Your task to perform on an android device: Search for logitech g502 on target, select the first entry, and add it to the cart. Image 0: 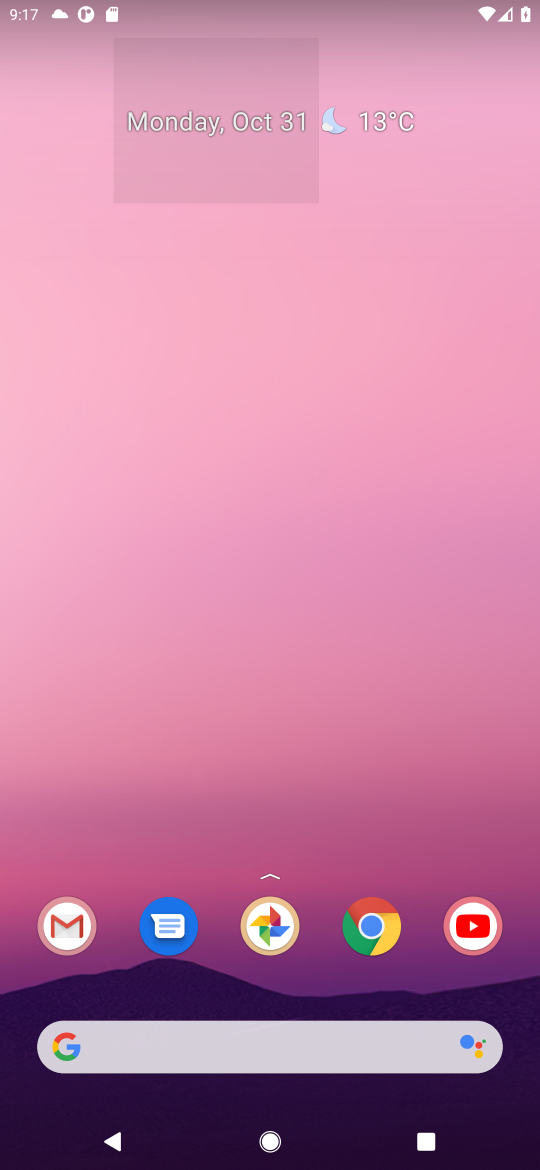
Step 0: click (365, 945)
Your task to perform on an android device: Search for logitech g502 on target, select the first entry, and add it to the cart. Image 1: 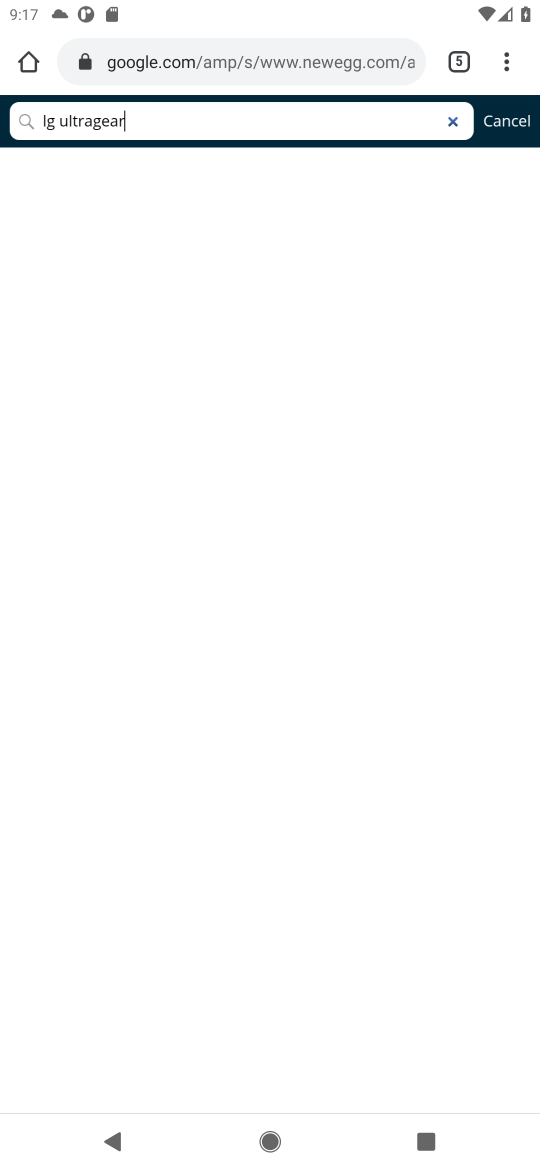
Step 1: click (464, 60)
Your task to perform on an android device: Search for logitech g502 on target, select the first entry, and add it to the cart. Image 2: 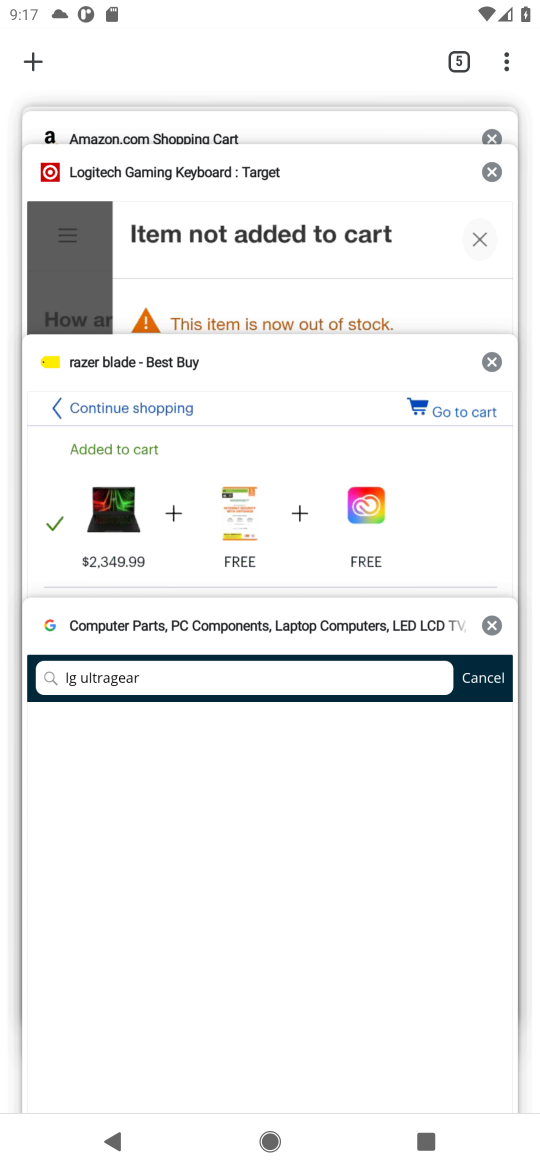
Step 2: click (254, 268)
Your task to perform on an android device: Search for logitech g502 on target, select the first entry, and add it to the cart. Image 3: 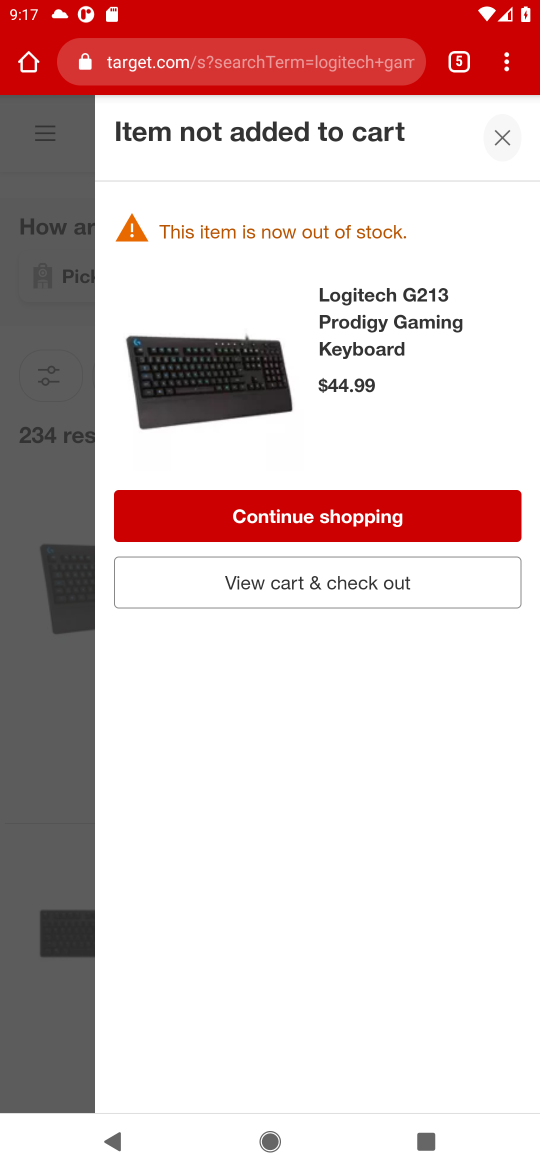
Step 3: click (506, 137)
Your task to perform on an android device: Search for logitech g502 on target, select the first entry, and add it to the cart. Image 4: 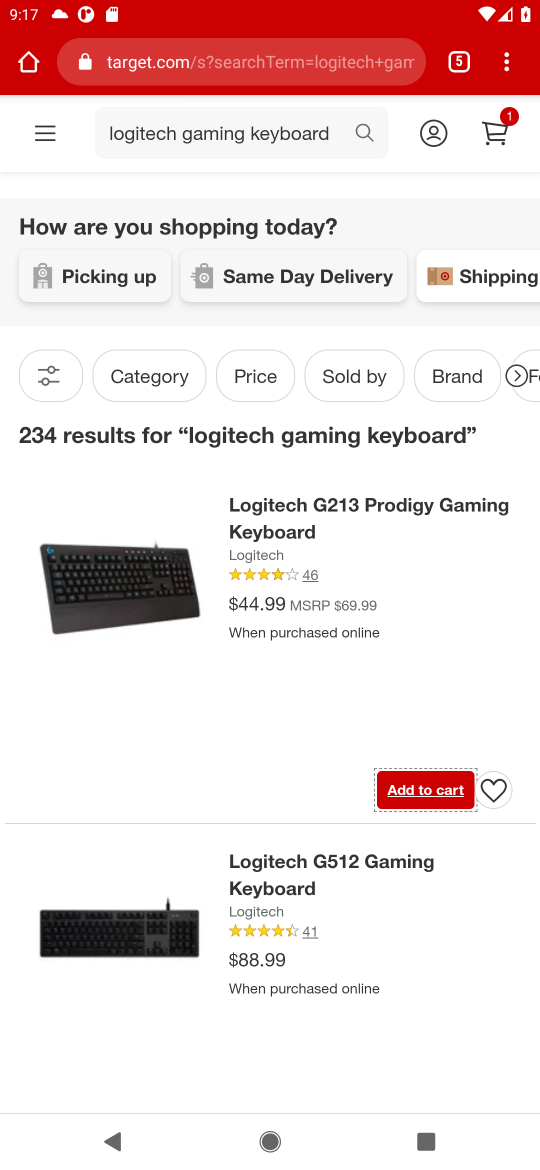
Step 4: click (360, 123)
Your task to perform on an android device: Search for logitech g502 on target, select the first entry, and add it to the cart. Image 5: 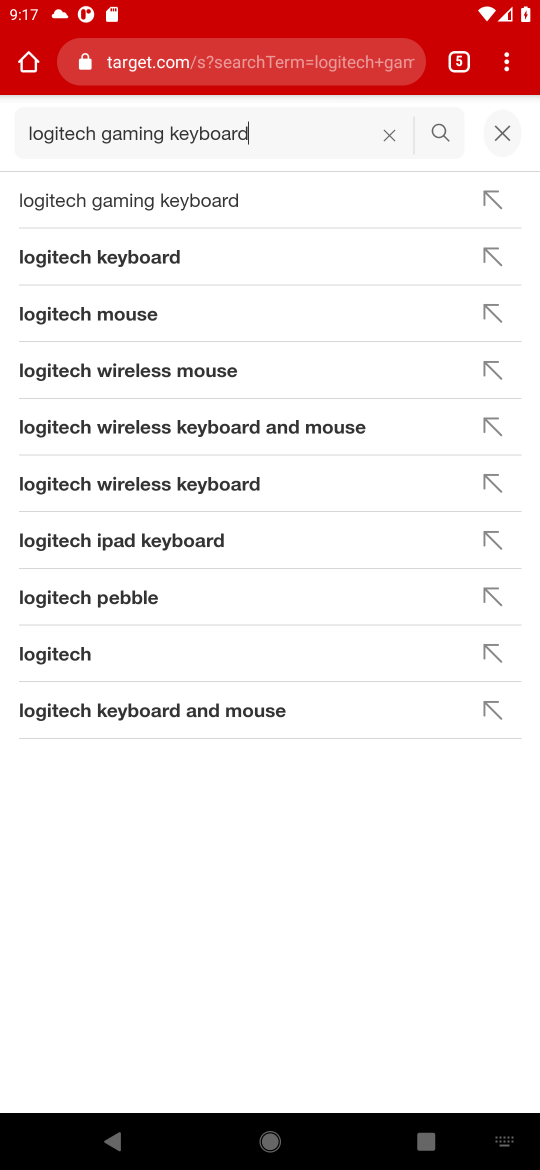
Step 5: click (170, 203)
Your task to perform on an android device: Search for logitech g502 on target, select the first entry, and add it to the cart. Image 6: 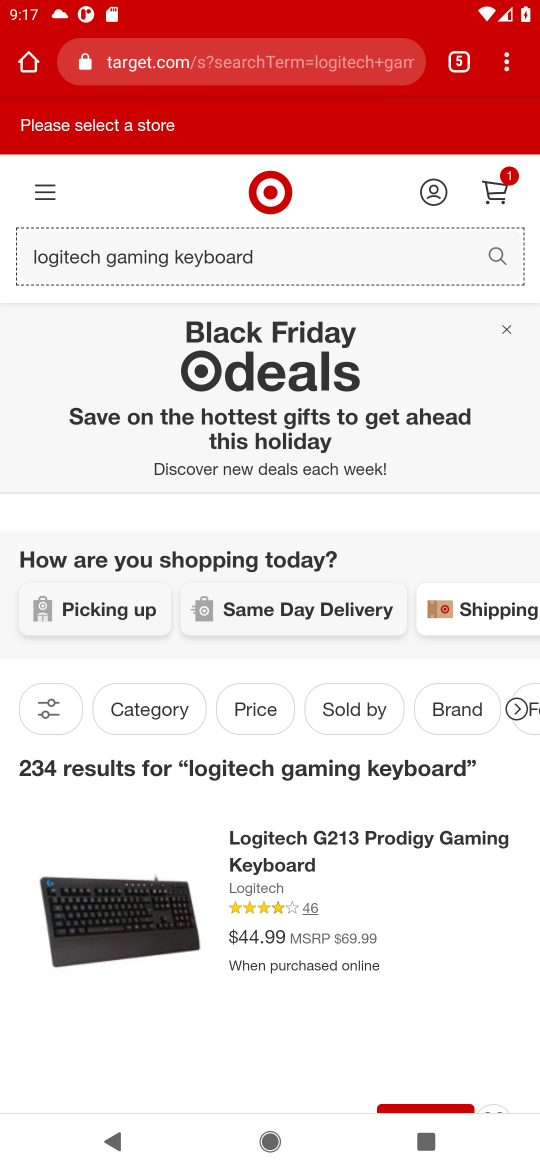
Step 6: drag from (359, 977) to (386, 721)
Your task to perform on an android device: Search for logitech g502 on target, select the first entry, and add it to the cart. Image 7: 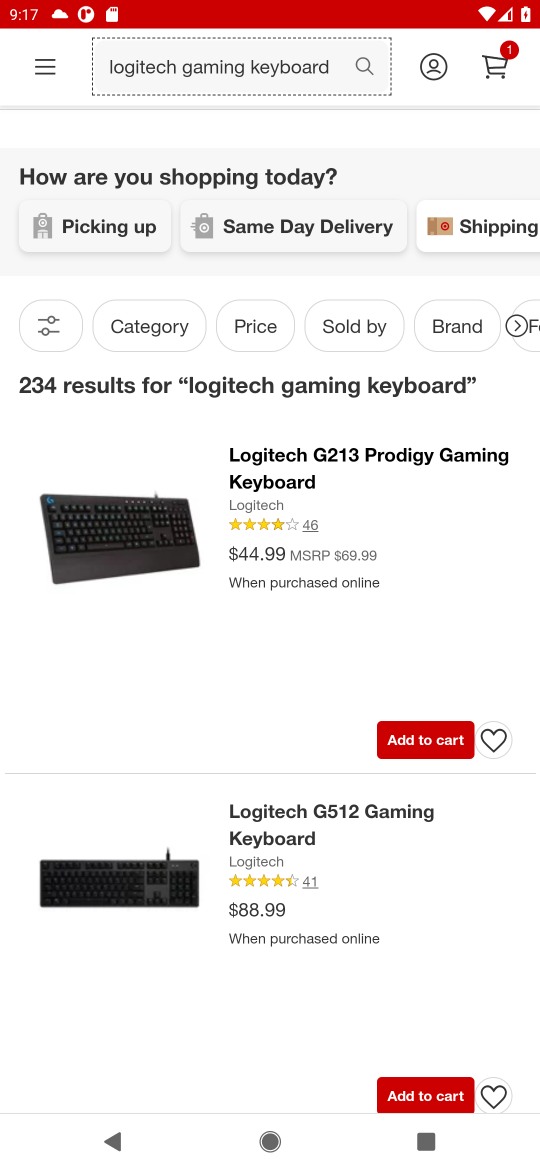
Step 7: drag from (407, 881) to (404, 319)
Your task to perform on an android device: Search for logitech g502 on target, select the first entry, and add it to the cart. Image 8: 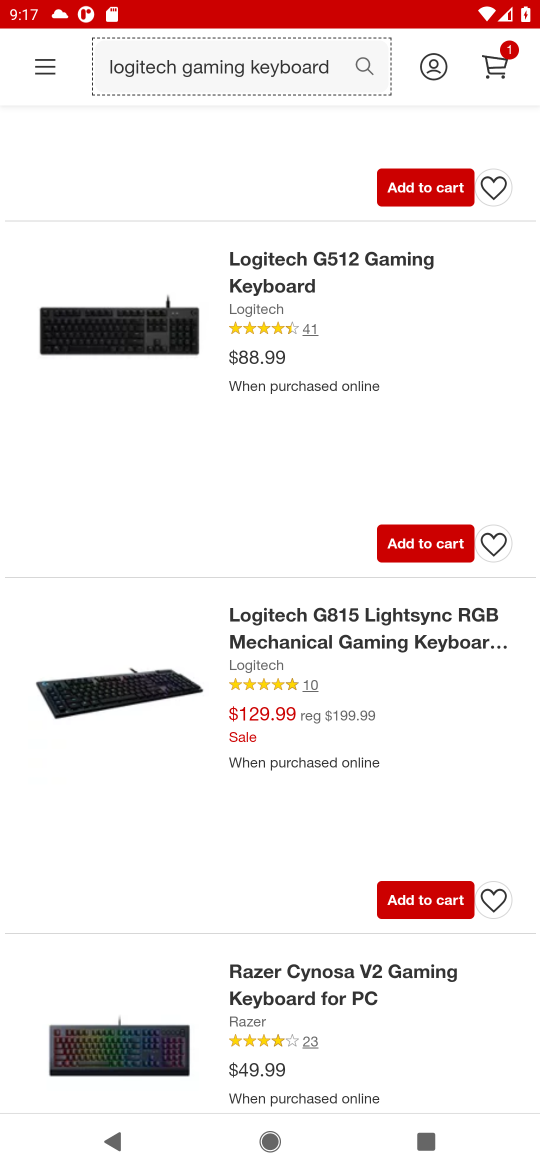
Step 8: click (431, 537)
Your task to perform on an android device: Search for logitech g502 on target, select the first entry, and add it to the cart. Image 9: 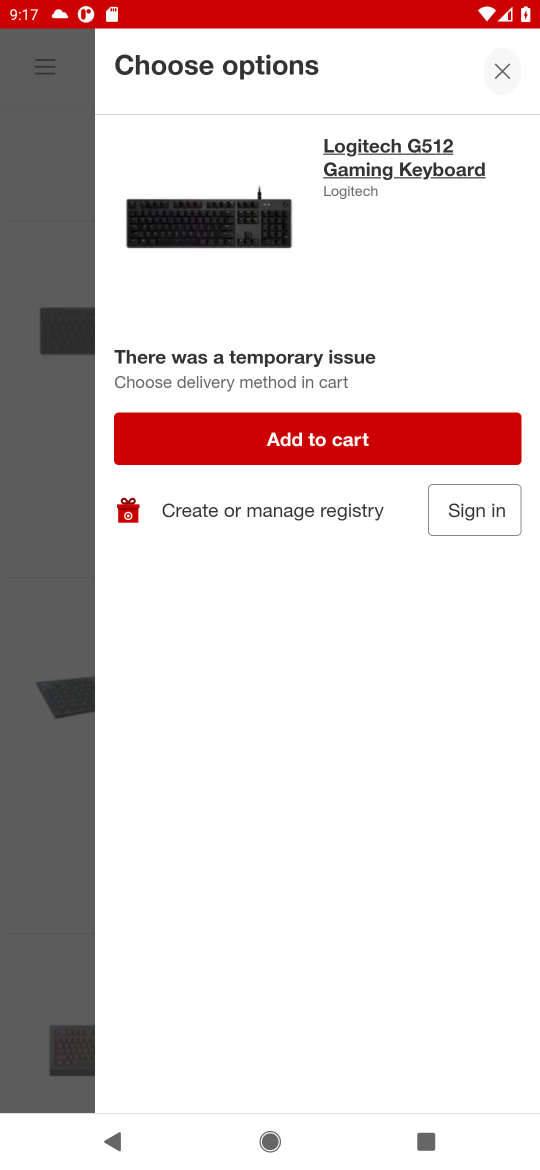
Step 9: click (389, 439)
Your task to perform on an android device: Search for logitech g502 on target, select the first entry, and add it to the cart. Image 10: 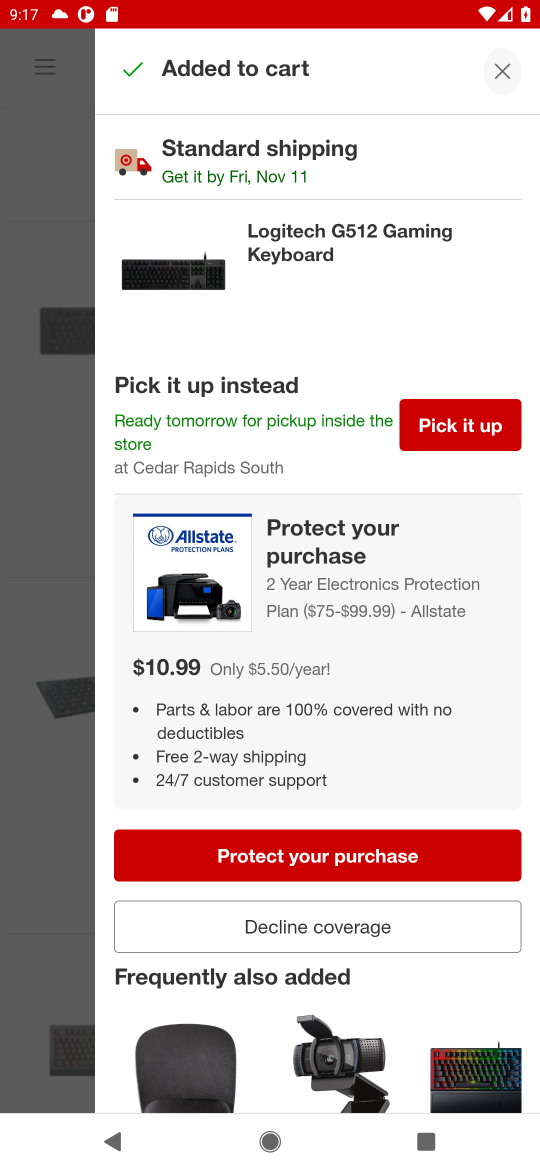
Step 10: task complete